Your task to perform on an android device: turn off translation in the chrome app Image 0: 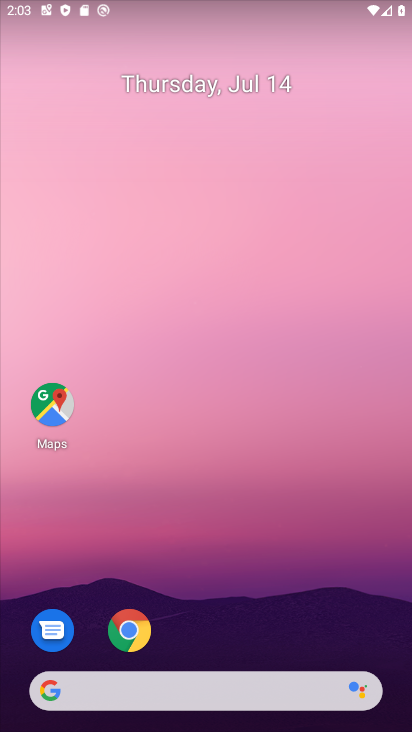
Step 0: click (141, 627)
Your task to perform on an android device: turn off translation in the chrome app Image 1: 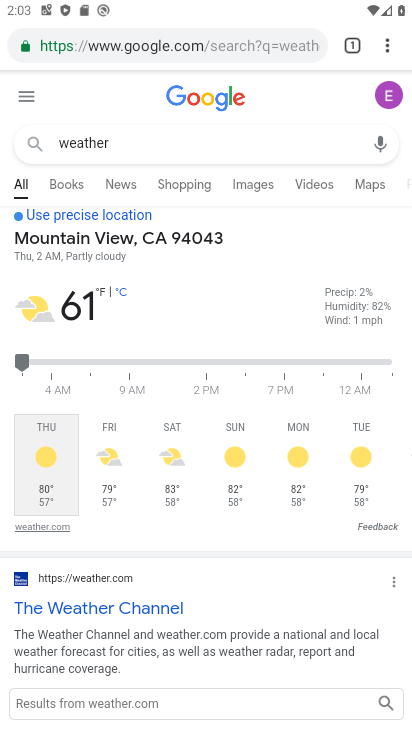
Step 1: click (383, 43)
Your task to perform on an android device: turn off translation in the chrome app Image 2: 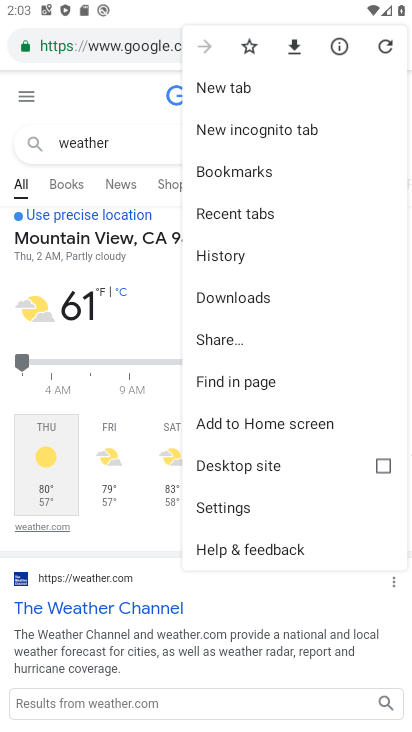
Step 2: click (260, 502)
Your task to perform on an android device: turn off translation in the chrome app Image 3: 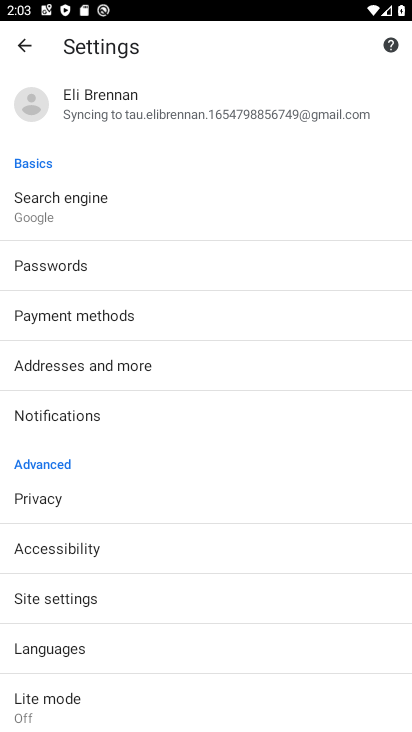
Step 3: drag from (181, 621) to (257, 382)
Your task to perform on an android device: turn off translation in the chrome app Image 4: 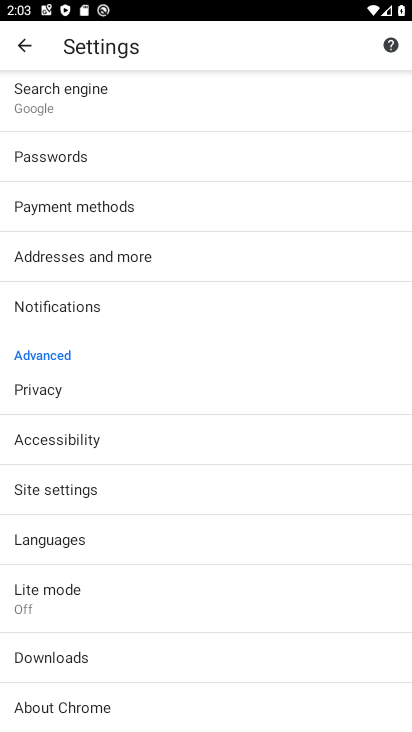
Step 4: click (191, 543)
Your task to perform on an android device: turn off translation in the chrome app Image 5: 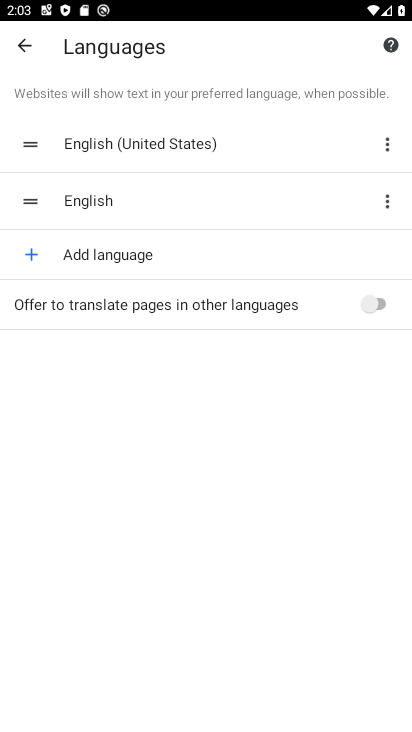
Step 5: task complete